Your task to perform on an android device: open a bookmark in the chrome app Image 0: 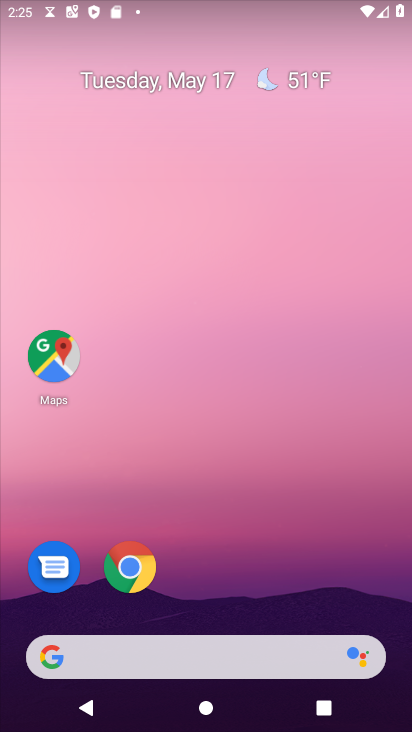
Step 0: click (143, 578)
Your task to perform on an android device: open a bookmark in the chrome app Image 1: 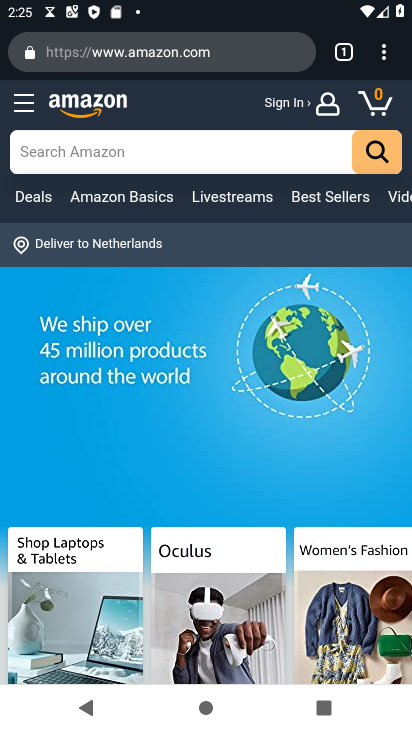
Step 1: task complete